Your task to perform on an android device: Open settings Image 0: 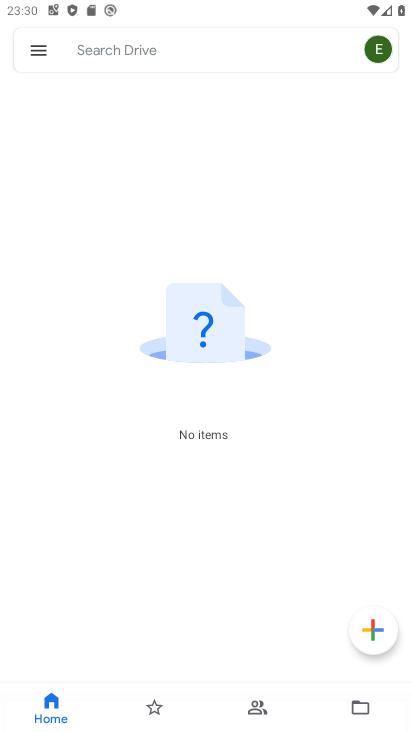
Step 0: press home button
Your task to perform on an android device: Open settings Image 1: 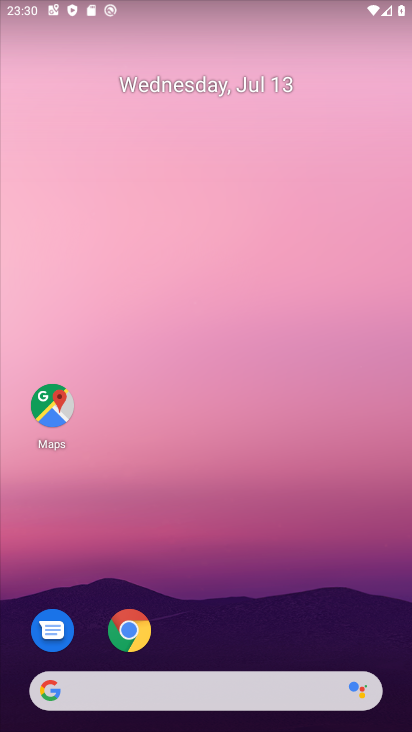
Step 1: drag from (347, 615) to (355, 66)
Your task to perform on an android device: Open settings Image 2: 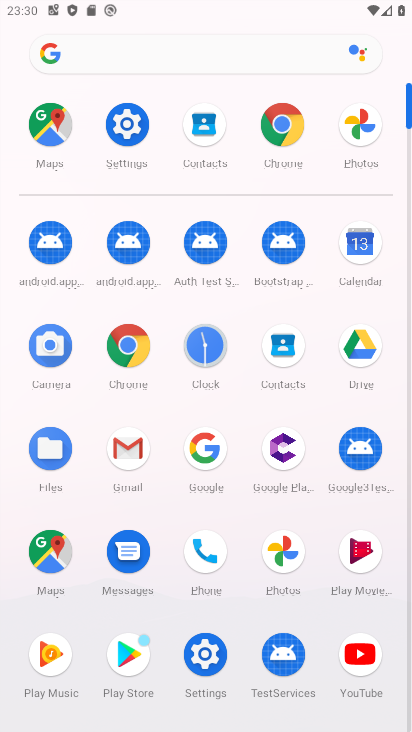
Step 2: click (125, 131)
Your task to perform on an android device: Open settings Image 3: 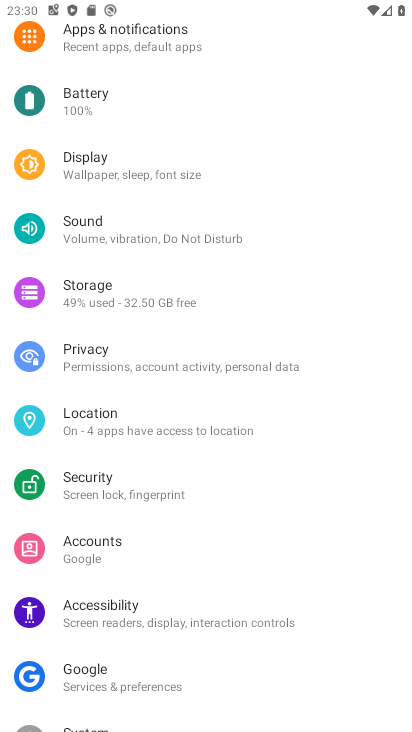
Step 3: task complete